Your task to perform on an android device: clear all cookies in the chrome app Image 0: 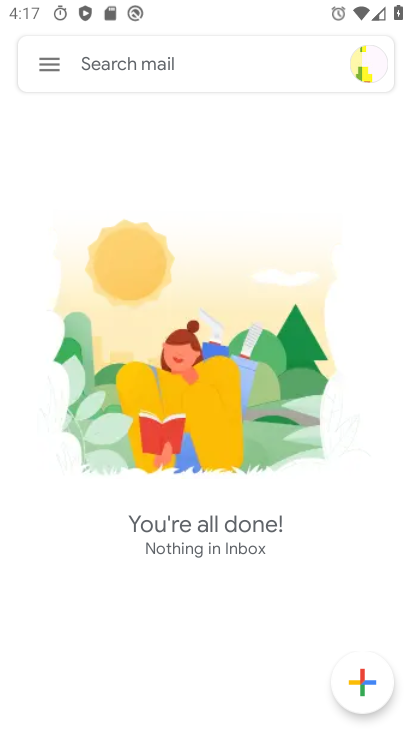
Step 0: click (44, 57)
Your task to perform on an android device: clear all cookies in the chrome app Image 1: 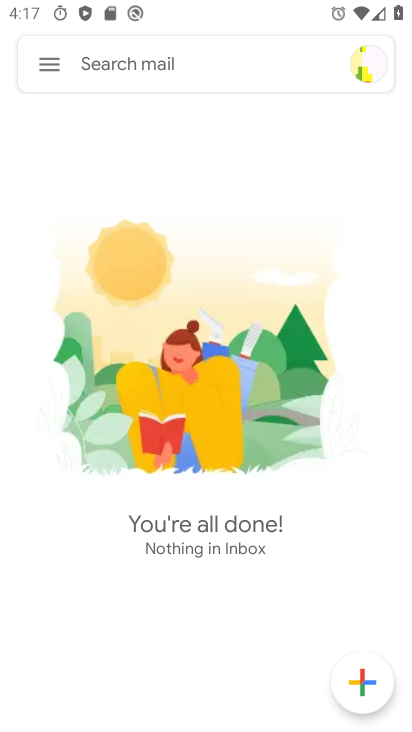
Step 1: click (44, 57)
Your task to perform on an android device: clear all cookies in the chrome app Image 2: 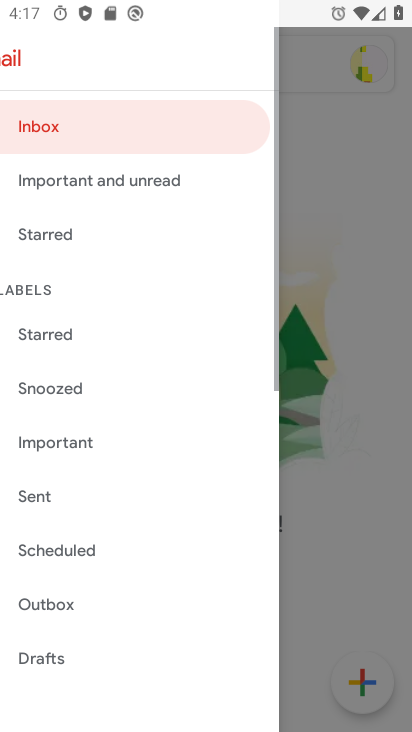
Step 2: click (44, 57)
Your task to perform on an android device: clear all cookies in the chrome app Image 3: 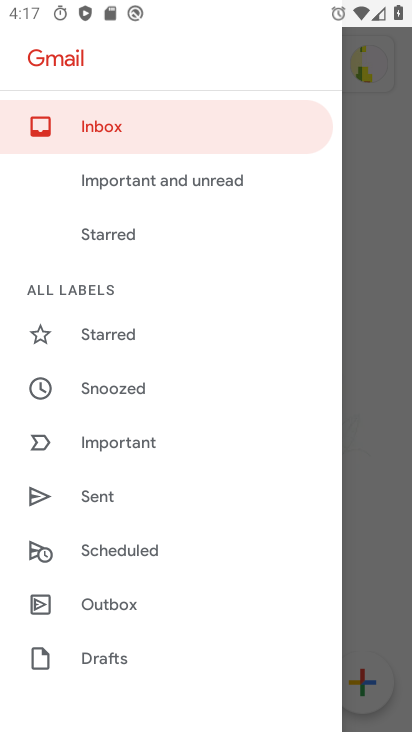
Step 3: click (364, 523)
Your task to perform on an android device: clear all cookies in the chrome app Image 4: 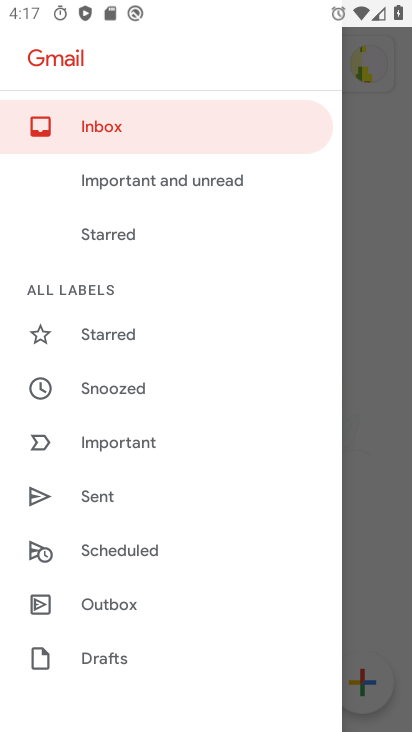
Step 4: click (362, 524)
Your task to perform on an android device: clear all cookies in the chrome app Image 5: 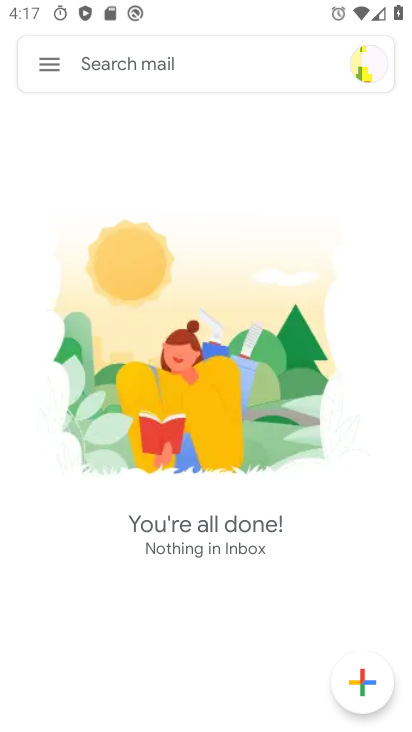
Step 5: click (361, 533)
Your task to perform on an android device: clear all cookies in the chrome app Image 6: 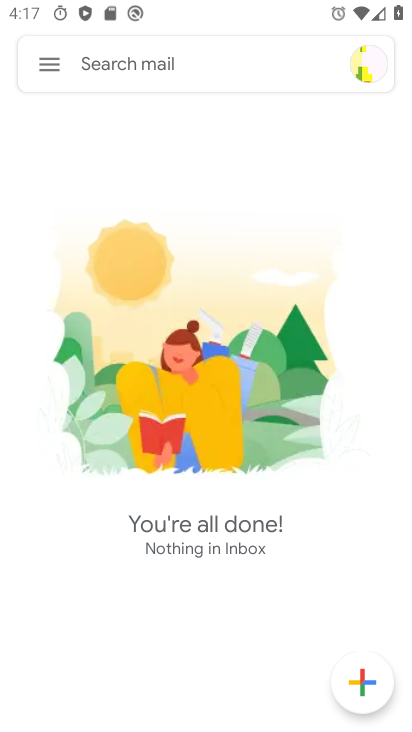
Step 6: click (44, 52)
Your task to perform on an android device: clear all cookies in the chrome app Image 7: 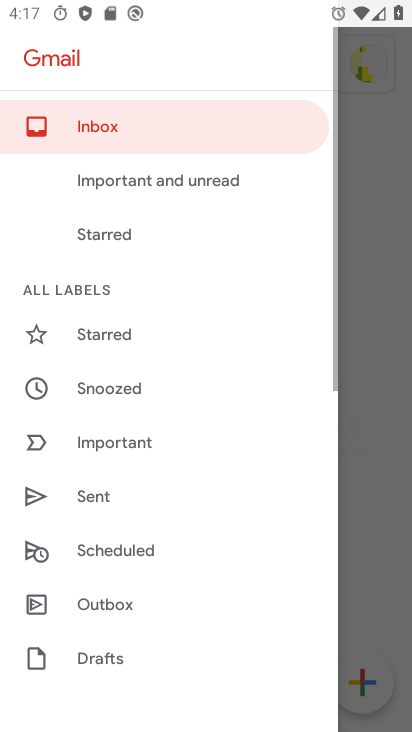
Step 7: click (43, 55)
Your task to perform on an android device: clear all cookies in the chrome app Image 8: 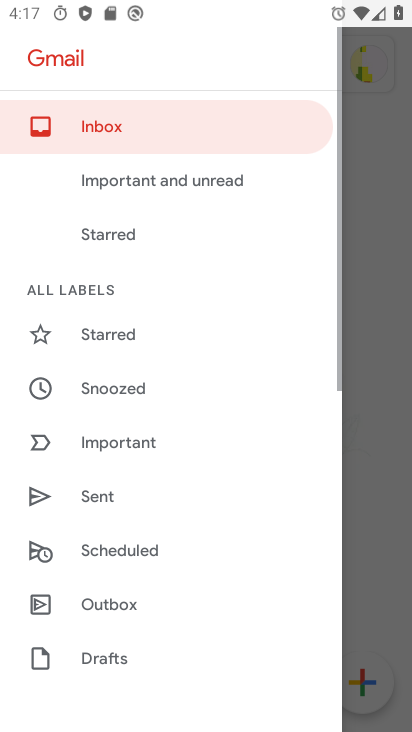
Step 8: drag from (105, 538) to (27, 72)
Your task to perform on an android device: clear all cookies in the chrome app Image 9: 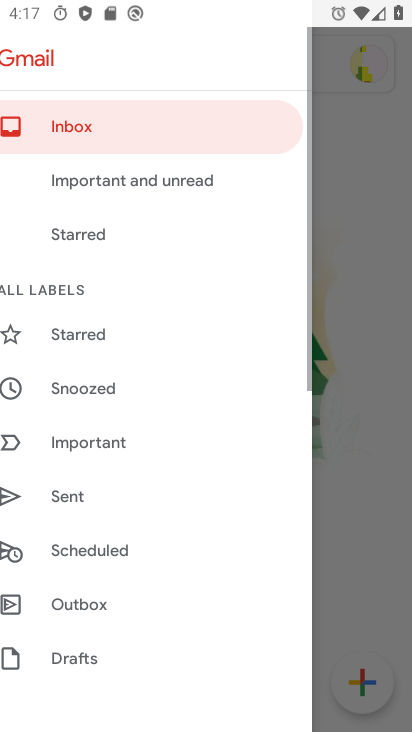
Step 9: drag from (134, 484) to (76, 229)
Your task to perform on an android device: clear all cookies in the chrome app Image 10: 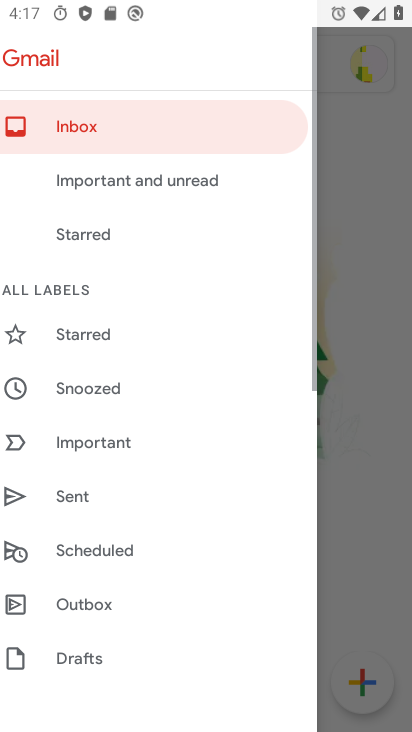
Step 10: drag from (126, 564) to (114, 148)
Your task to perform on an android device: clear all cookies in the chrome app Image 11: 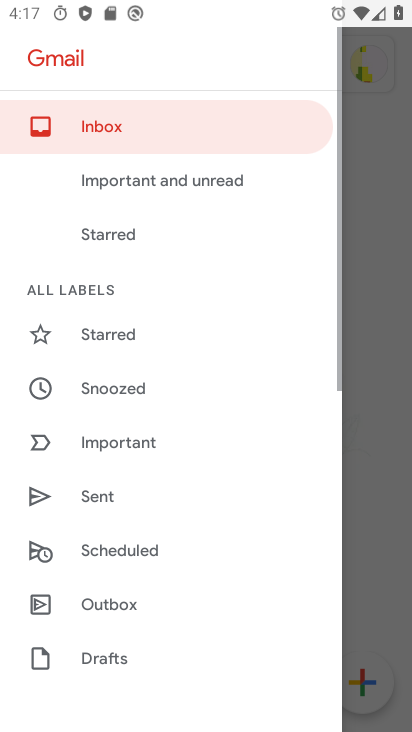
Step 11: drag from (118, 535) to (122, 14)
Your task to perform on an android device: clear all cookies in the chrome app Image 12: 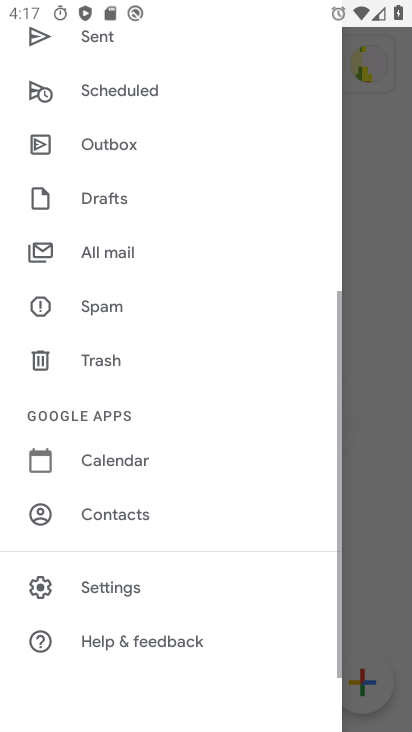
Step 12: drag from (104, 487) to (60, 85)
Your task to perform on an android device: clear all cookies in the chrome app Image 13: 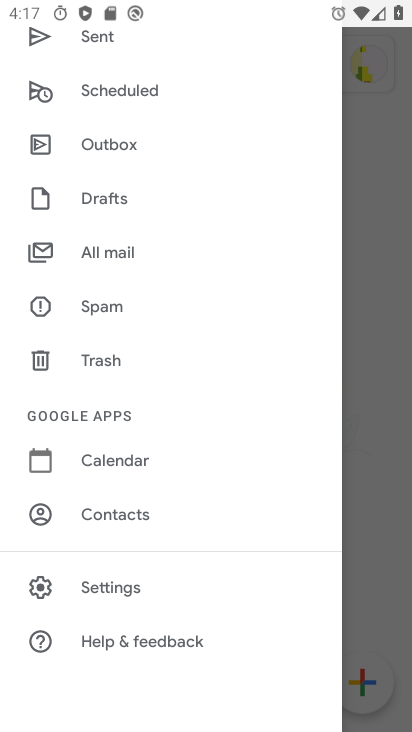
Step 13: click (97, 582)
Your task to perform on an android device: clear all cookies in the chrome app Image 14: 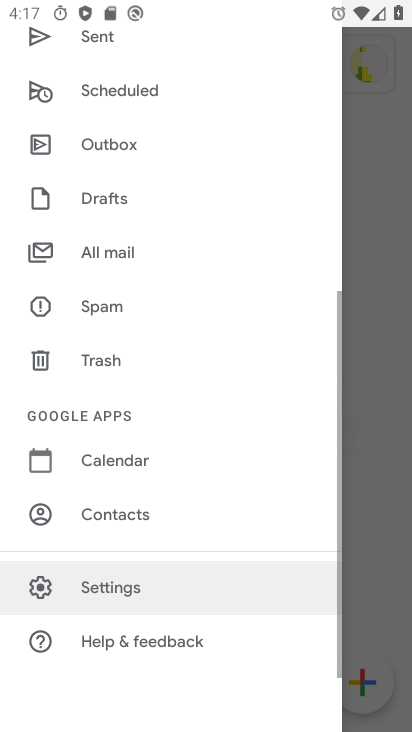
Step 14: click (97, 581)
Your task to perform on an android device: clear all cookies in the chrome app Image 15: 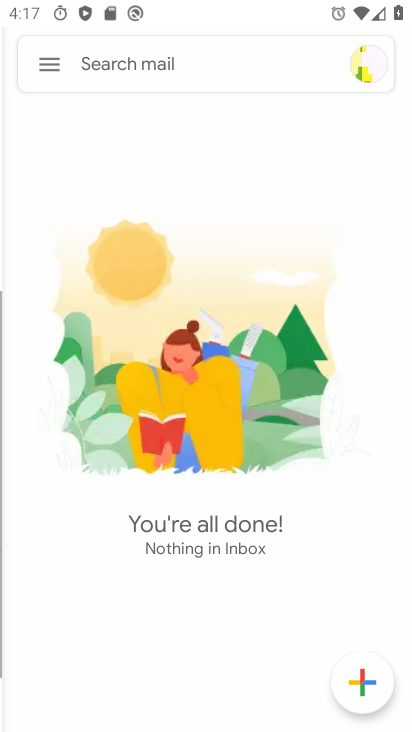
Step 15: click (97, 579)
Your task to perform on an android device: clear all cookies in the chrome app Image 16: 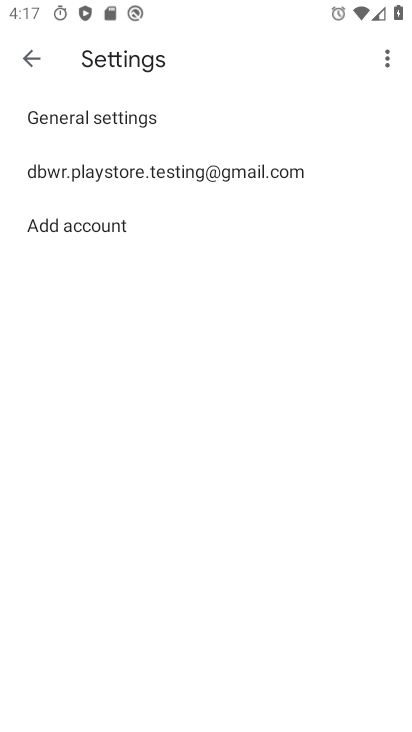
Step 16: click (152, 172)
Your task to perform on an android device: clear all cookies in the chrome app Image 17: 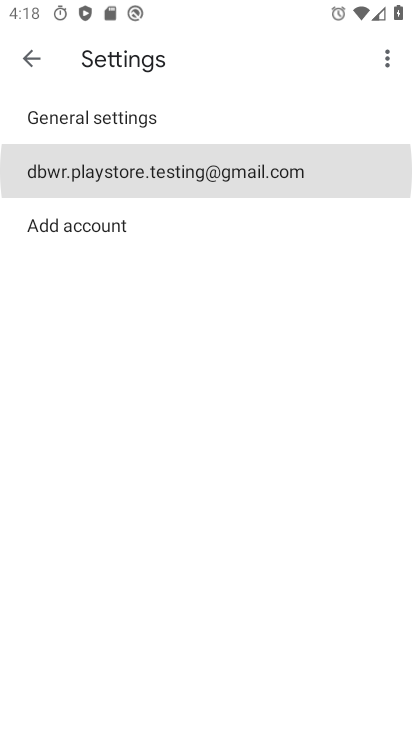
Step 17: click (151, 171)
Your task to perform on an android device: clear all cookies in the chrome app Image 18: 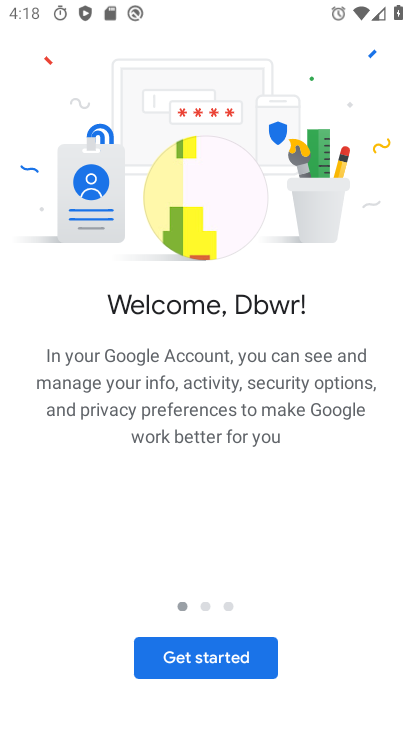
Step 18: click (206, 652)
Your task to perform on an android device: clear all cookies in the chrome app Image 19: 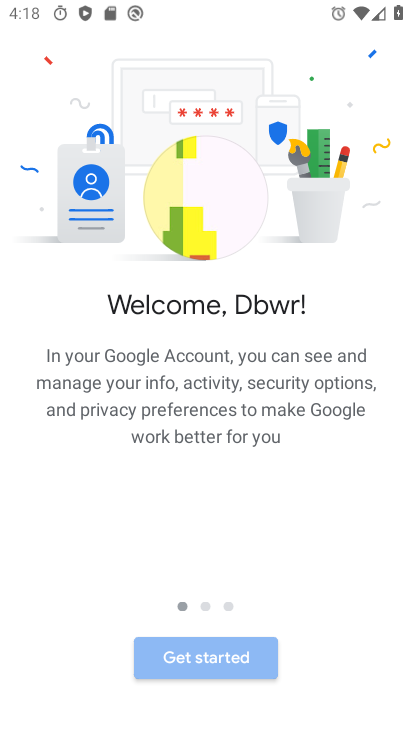
Step 19: click (206, 659)
Your task to perform on an android device: clear all cookies in the chrome app Image 20: 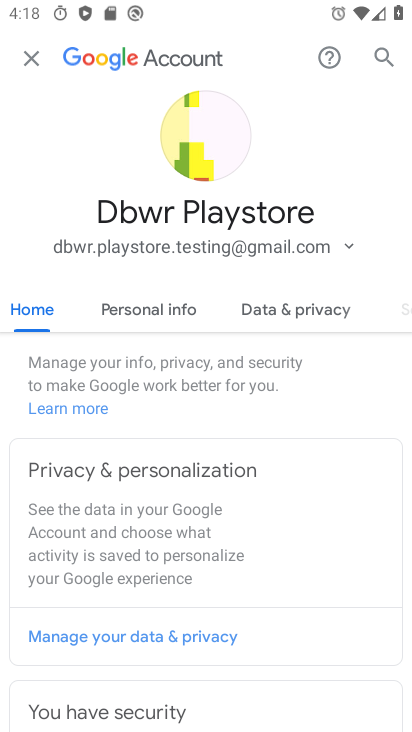
Step 20: click (213, 651)
Your task to perform on an android device: clear all cookies in the chrome app Image 21: 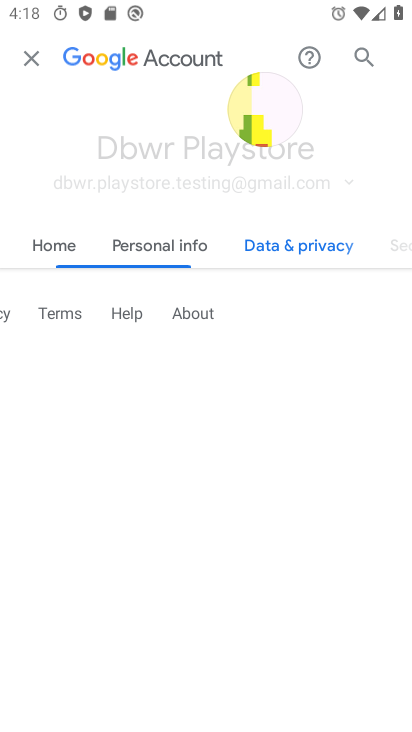
Step 21: click (220, 650)
Your task to perform on an android device: clear all cookies in the chrome app Image 22: 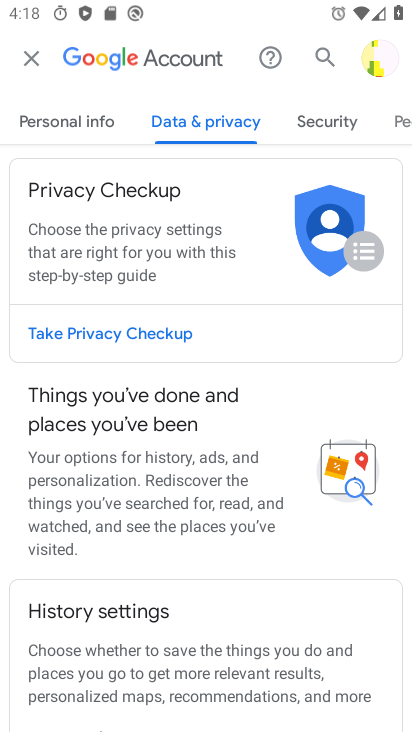
Step 22: click (30, 58)
Your task to perform on an android device: clear all cookies in the chrome app Image 23: 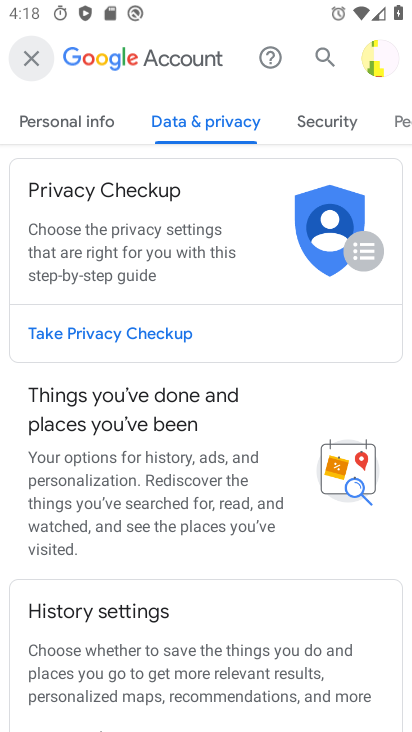
Step 23: click (30, 58)
Your task to perform on an android device: clear all cookies in the chrome app Image 24: 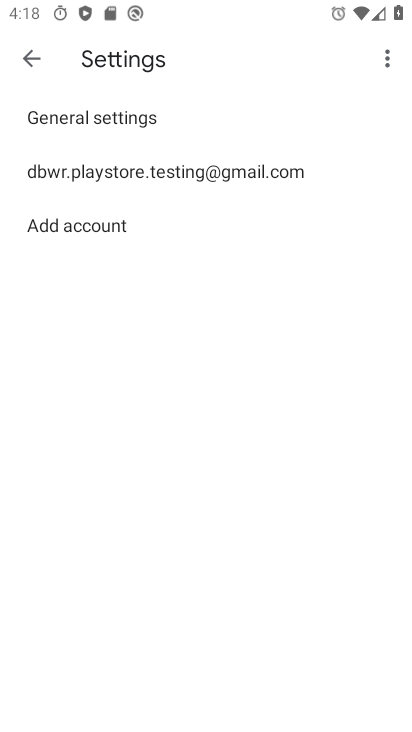
Step 24: click (156, 169)
Your task to perform on an android device: clear all cookies in the chrome app Image 25: 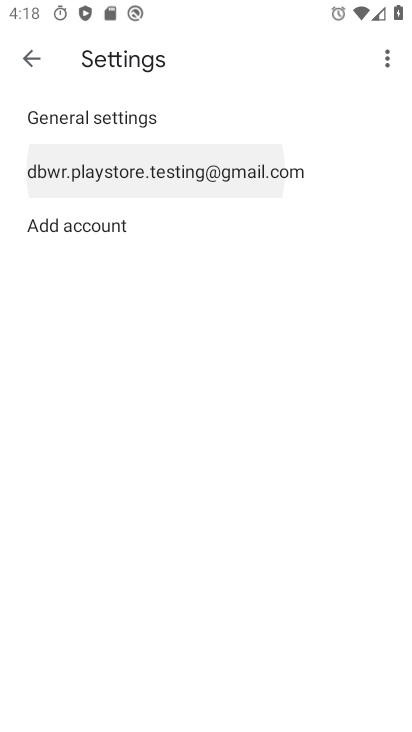
Step 25: click (156, 169)
Your task to perform on an android device: clear all cookies in the chrome app Image 26: 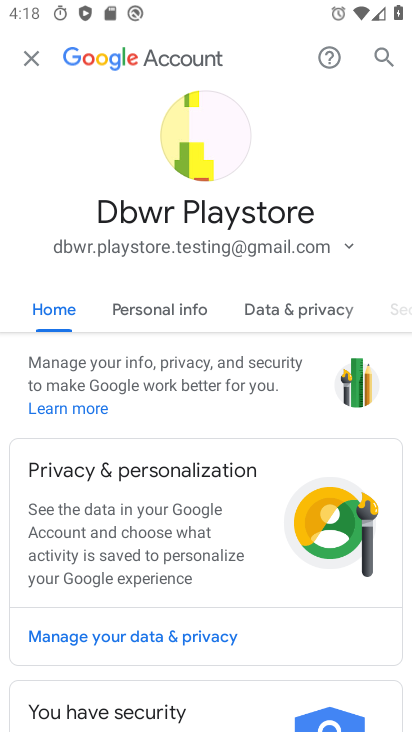
Step 26: click (30, 61)
Your task to perform on an android device: clear all cookies in the chrome app Image 27: 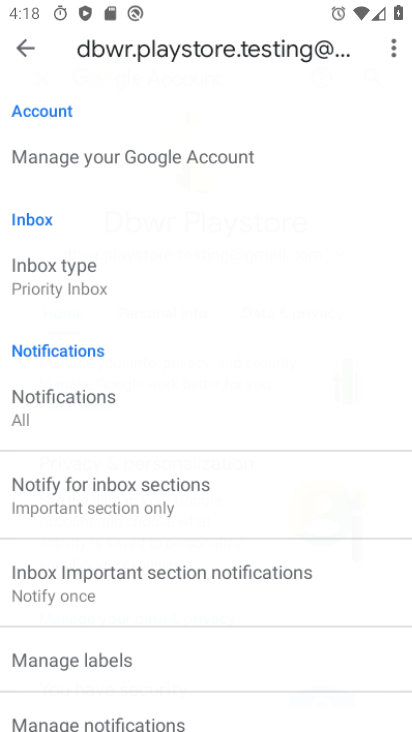
Step 27: click (30, 61)
Your task to perform on an android device: clear all cookies in the chrome app Image 28: 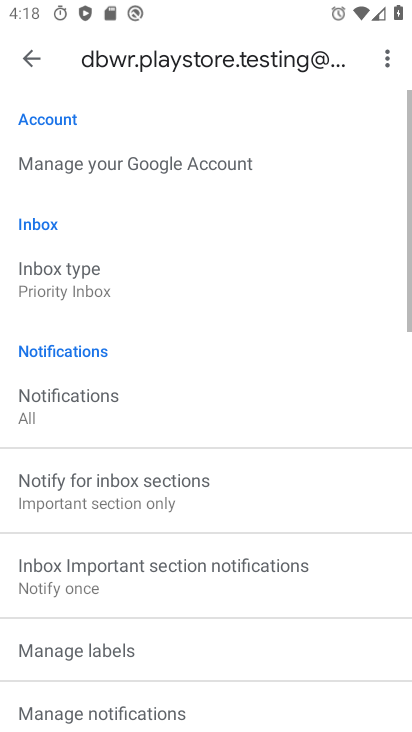
Step 28: click (30, 61)
Your task to perform on an android device: clear all cookies in the chrome app Image 29: 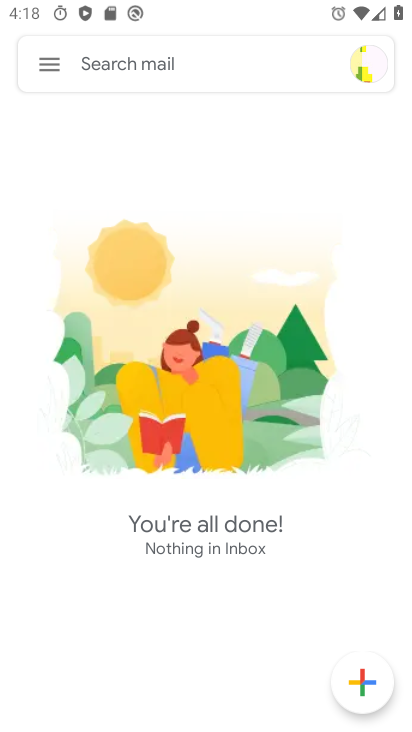
Step 29: click (28, 44)
Your task to perform on an android device: clear all cookies in the chrome app Image 30: 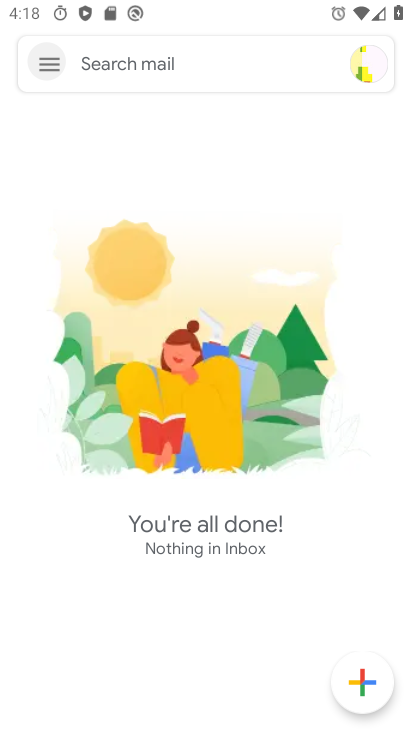
Step 30: click (25, 44)
Your task to perform on an android device: clear all cookies in the chrome app Image 31: 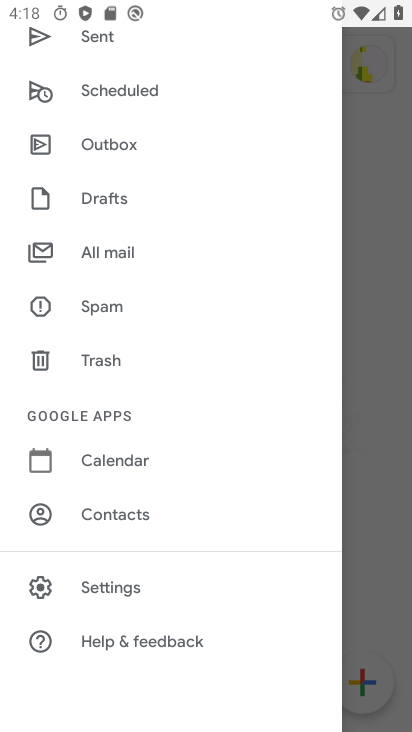
Step 31: press home button
Your task to perform on an android device: clear all cookies in the chrome app Image 32: 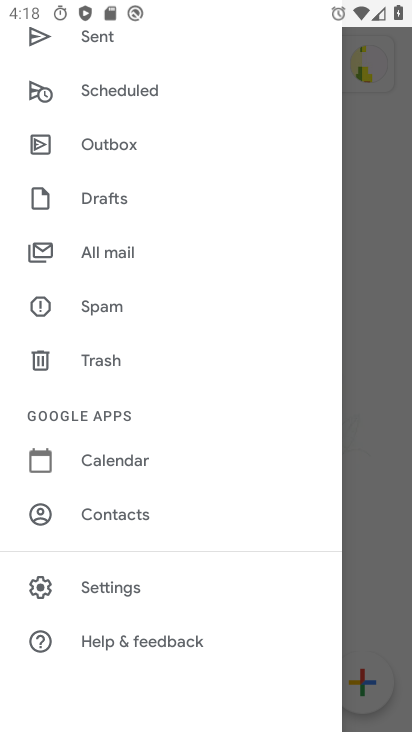
Step 32: press home button
Your task to perform on an android device: clear all cookies in the chrome app Image 33: 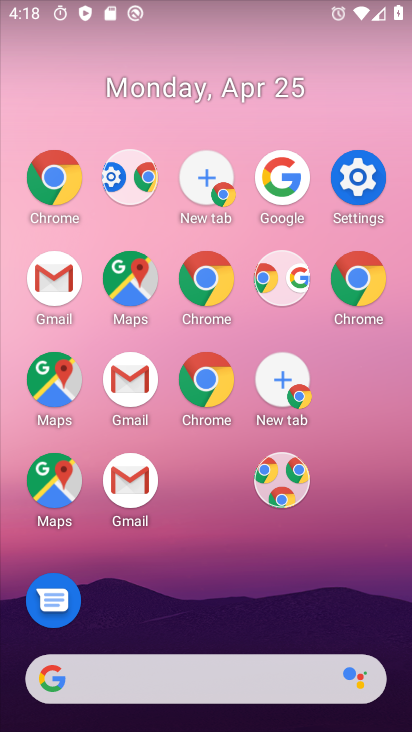
Step 33: drag from (287, 578) to (128, 5)
Your task to perform on an android device: clear all cookies in the chrome app Image 34: 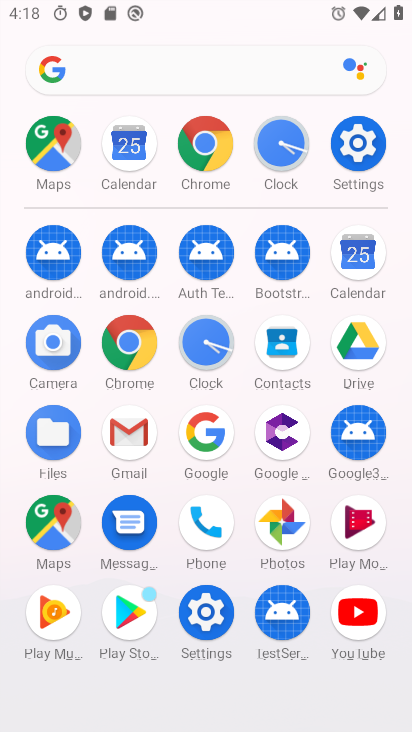
Step 34: click (186, 144)
Your task to perform on an android device: clear all cookies in the chrome app Image 35: 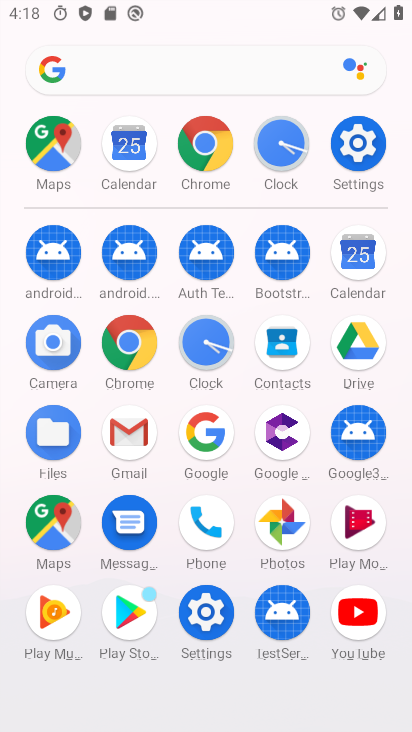
Step 35: click (186, 144)
Your task to perform on an android device: clear all cookies in the chrome app Image 36: 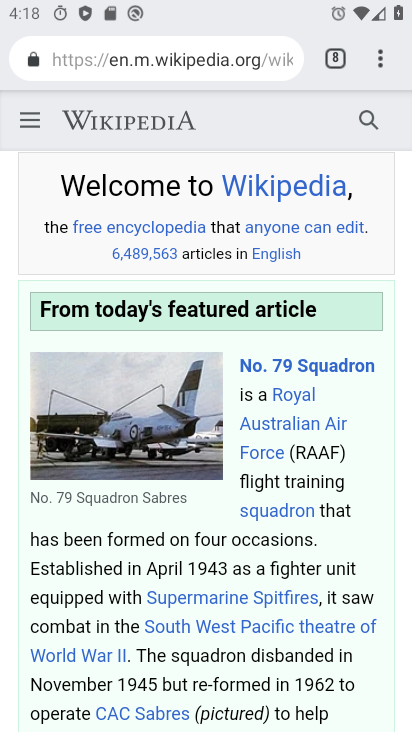
Step 36: drag from (378, 66) to (137, 474)
Your task to perform on an android device: clear all cookies in the chrome app Image 37: 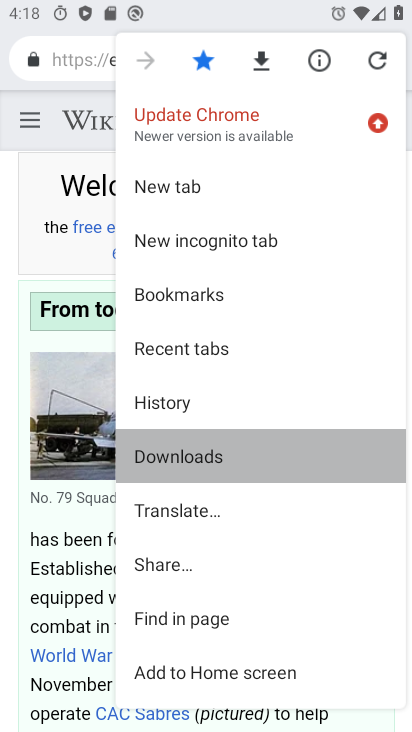
Step 37: drag from (137, 474) to (97, 144)
Your task to perform on an android device: clear all cookies in the chrome app Image 38: 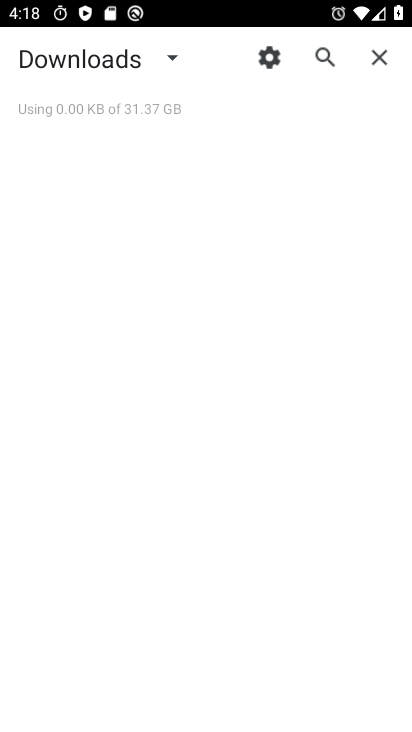
Step 38: click (375, 57)
Your task to perform on an android device: clear all cookies in the chrome app Image 39: 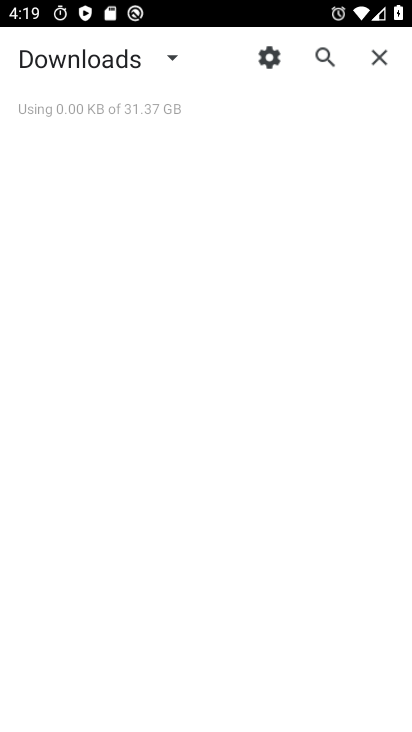
Step 39: click (372, 59)
Your task to perform on an android device: clear all cookies in the chrome app Image 40: 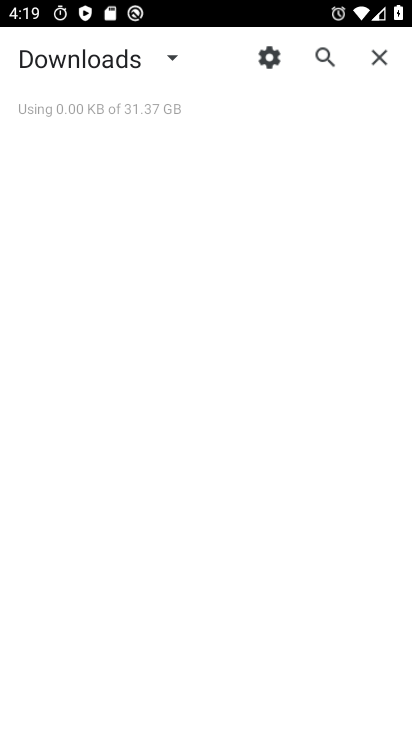
Step 40: click (372, 59)
Your task to perform on an android device: clear all cookies in the chrome app Image 41: 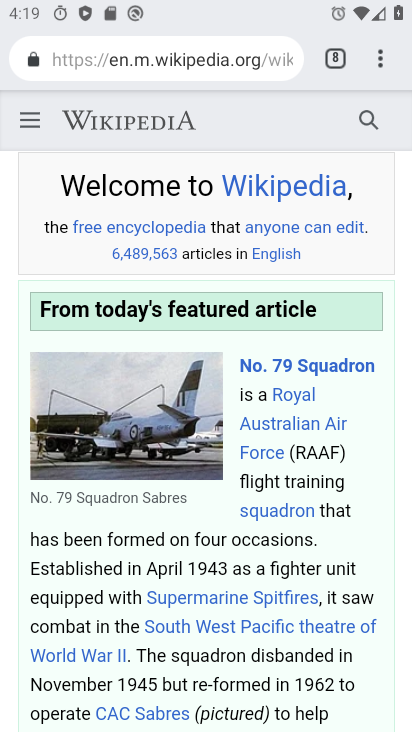
Step 41: drag from (377, 54) to (171, 631)
Your task to perform on an android device: clear all cookies in the chrome app Image 42: 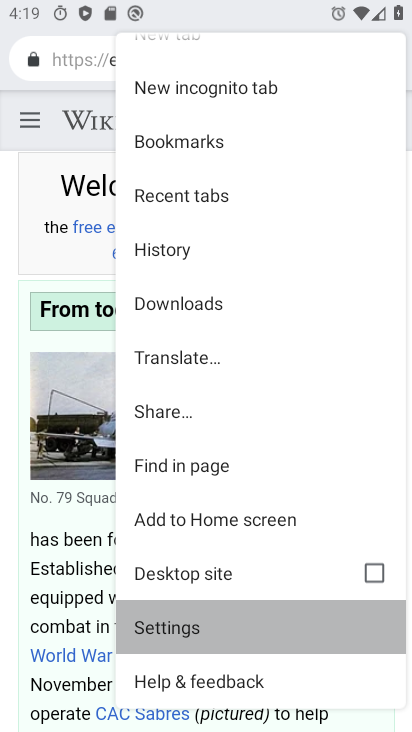
Step 42: click (172, 630)
Your task to perform on an android device: clear all cookies in the chrome app Image 43: 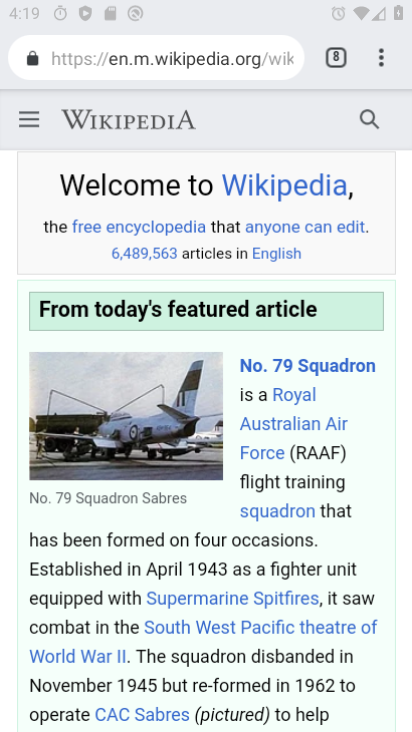
Step 43: click (176, 635)
Your task to perform on an android device: clear all cookies in the chrome app Image 44: 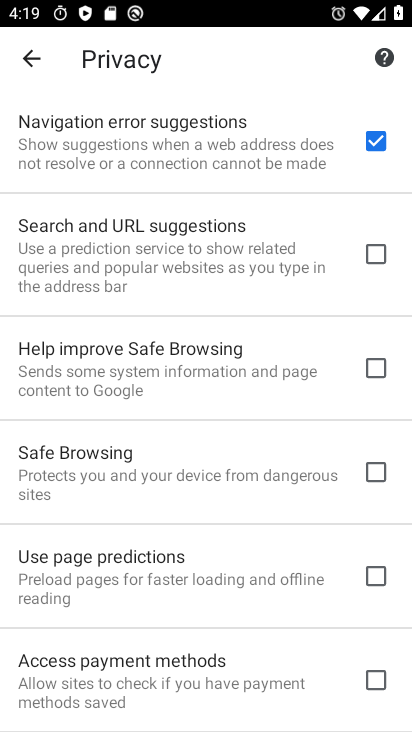
Step 44: drag from (171, 572) to (148, 152)
Your task to perform on an android device: clear all cookies in the chrome app Image 45: 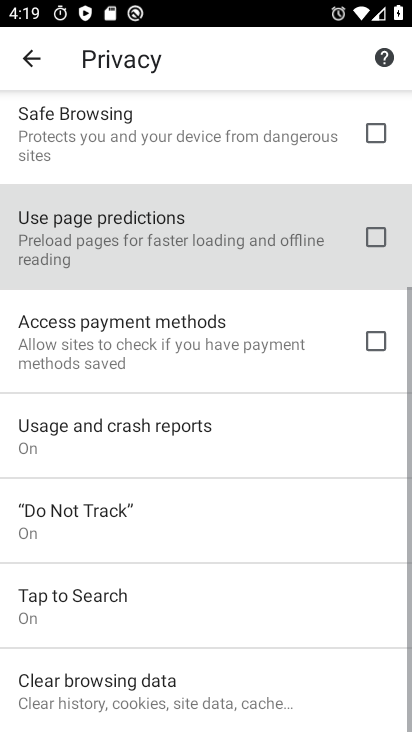
Step 45: drag from (172, 560) to (88, 215)
Your task to perform on an android device: clear all cookies in the chrome app Image 46: 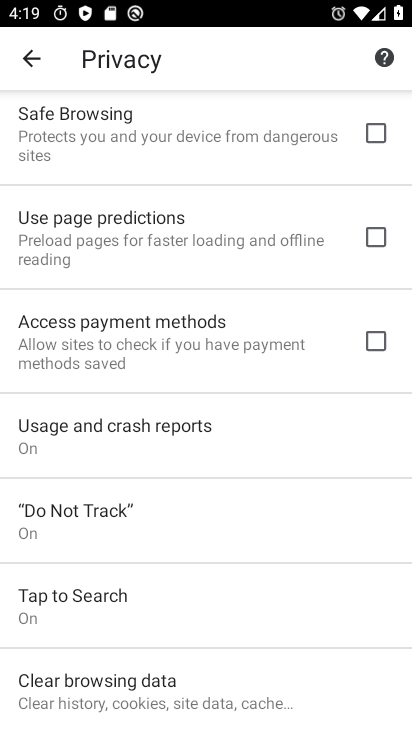
Step 46: click (30, 62)
Your task to perform on an android device: clear all cookies in the chrome app Image 47: 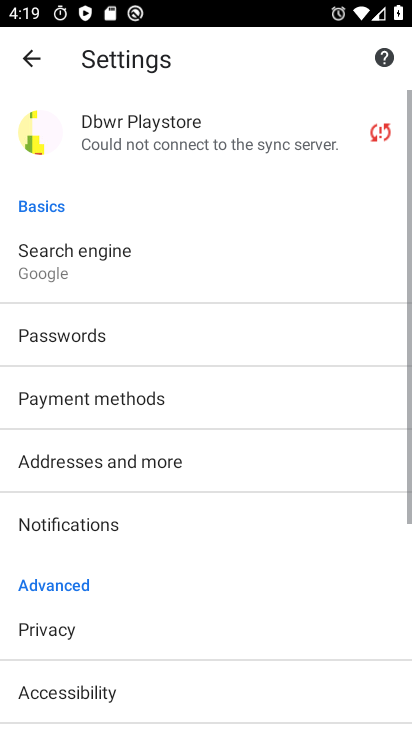
Step 47: drag from (176, 523) to (157, 216)
Your task to perform on an android device: clear all cookies in the chrome app Image 48: 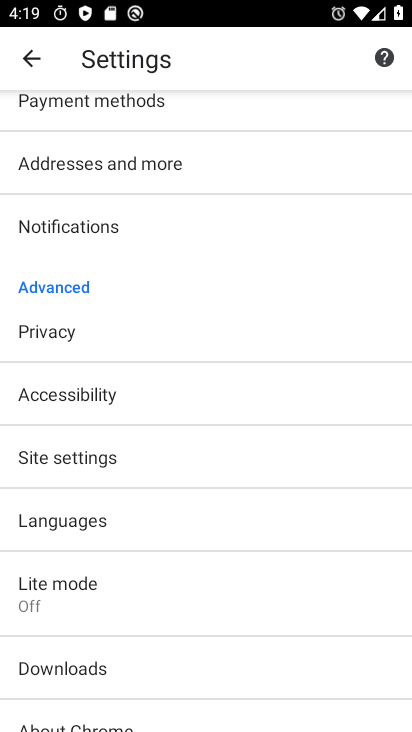
Step 48: drag from (135, 380) to (108, 132)
Your task to perform on an android device: clear all cookies in the chrome app Image 49: 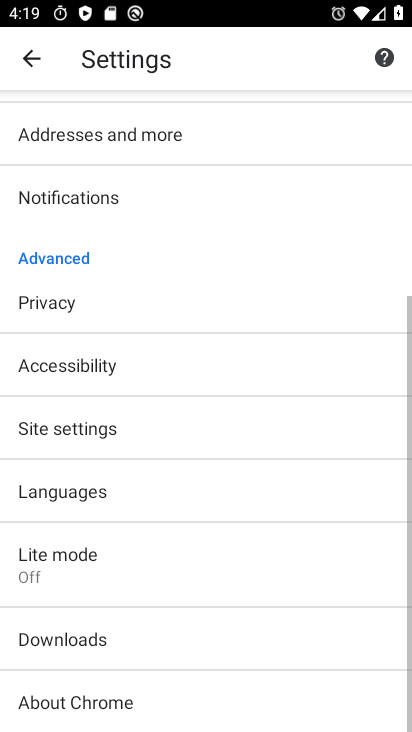
Step 49: click (61, 427)
Your task to perform on an android device: clear all cookies in the chrome app Image 50: 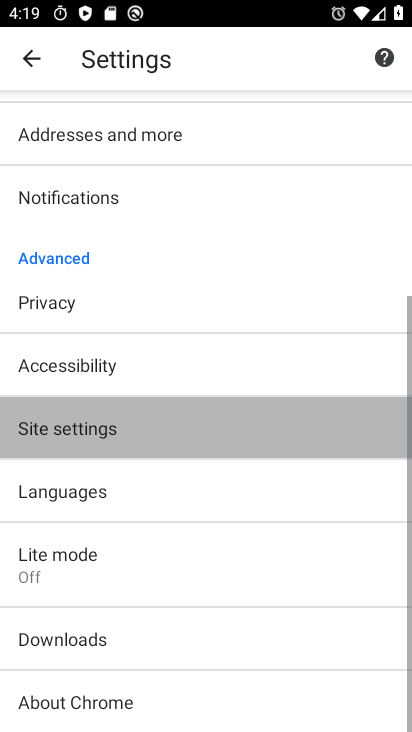
Step 50: click (61, 429)
Your task to perform on an android device: clear all cookies in the chrome app Image 51: 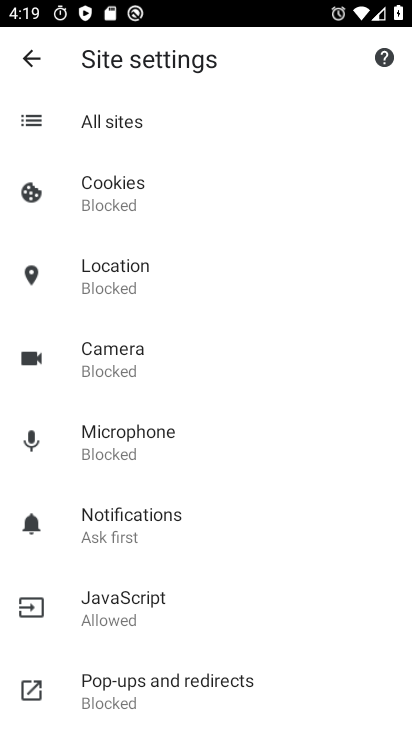
Step 51: drag from (149, 439) to (108, 5)
Your task to perform on an android device: clear all cookies in the chrome app Image 52: 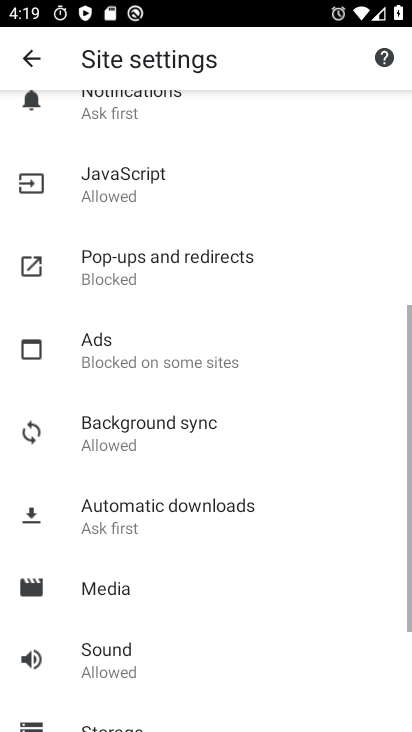
Step 52: drag from (133, 504) to (171, 4)
Your task to perform on an android device: clear all cookies in the chrome app Image 53: 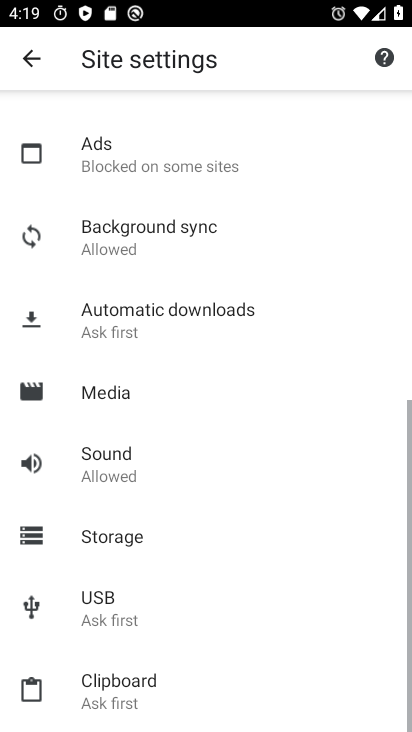
Step 53: drag from (131, 166) to (170, 672)
Your task to perform on an android device: clear all cookies in the chrome app Image 54: 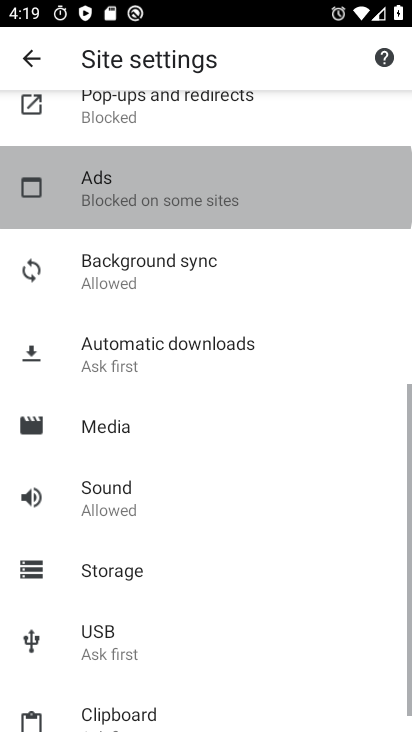
Step 54: drag from (148, 457) to (84, 619)
Your task to perform on an android device: clear all cookies in the chrome app Image 55: 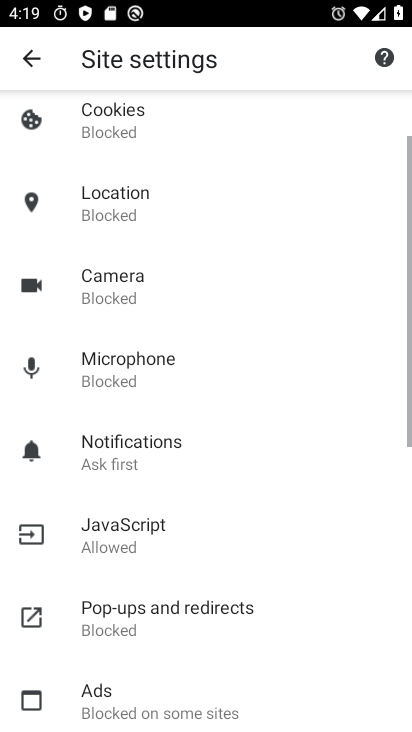
Step 55: click (157, 386)
Your task to perform on an android device: clear all cookies in the chrome app Image 56: 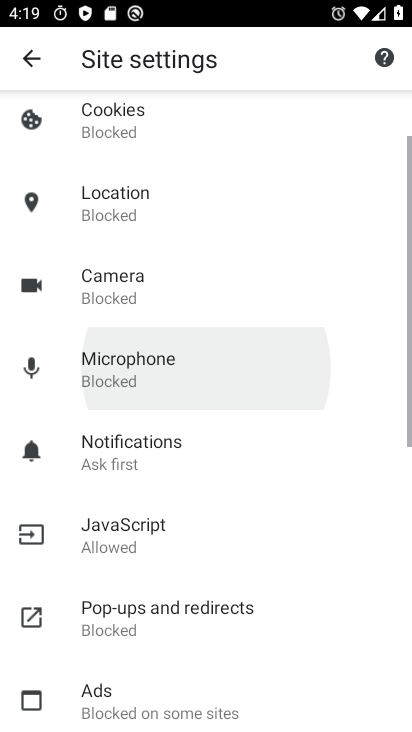
Step 56: drag from (120, 460) to (119, 422)
Your task to perform on an android device: clear all cookies in the chrome app Image 57: 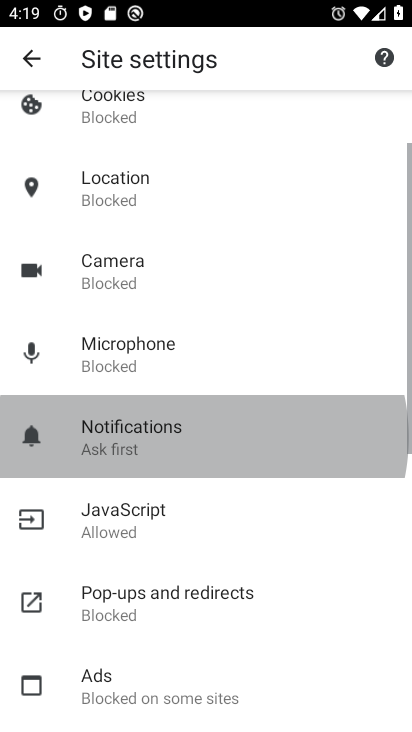
Step 57: drag from (71, 380) to (89, 615)
Your task to perform on an android device: clear all cookies in the chrome app Image 58: 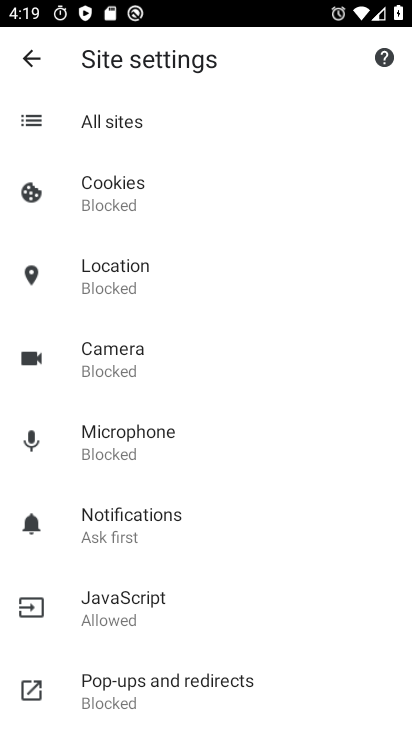
Step 58: click (101, 194)
Your task to perform on an android device: clear all cookies in the chrome app Image 59: 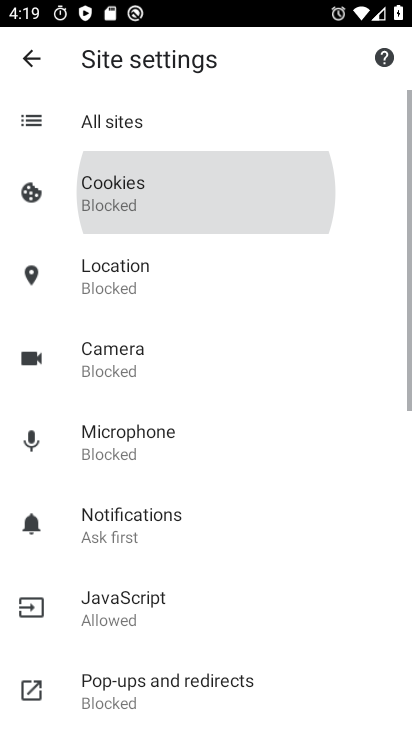
Step 59: click (101, 194)
Your task to perform on an android device: clear all cookies in the chrome app Image 60: 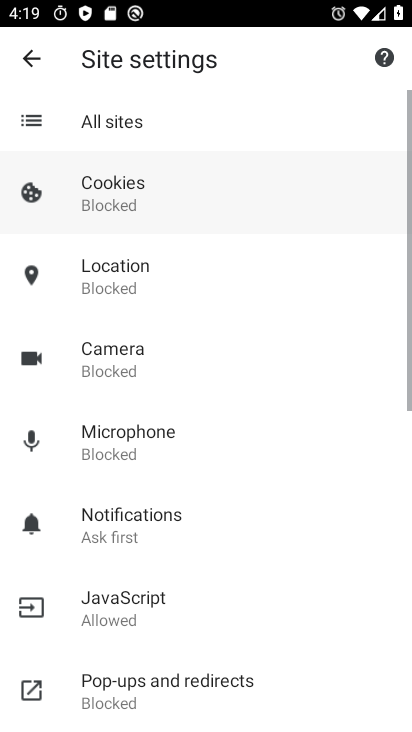
Step 60: click (101, 194)
Your task to perform on an android device: clear all cookies in the chrome app Image 61: 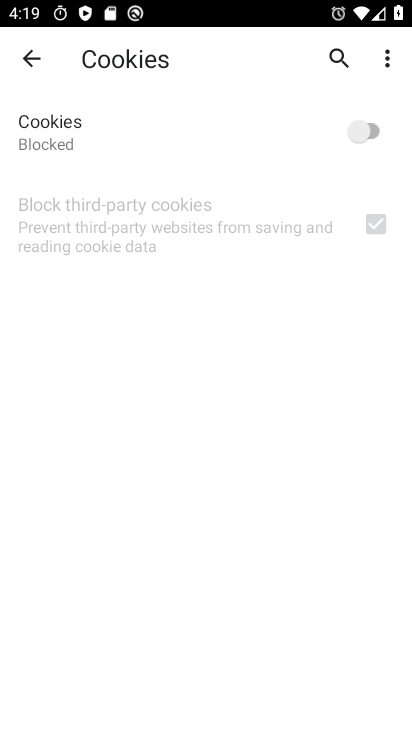
Step 61: click (363, 130)
Your task to perform on an android device: clear all cookies in the chrome app Image 62: 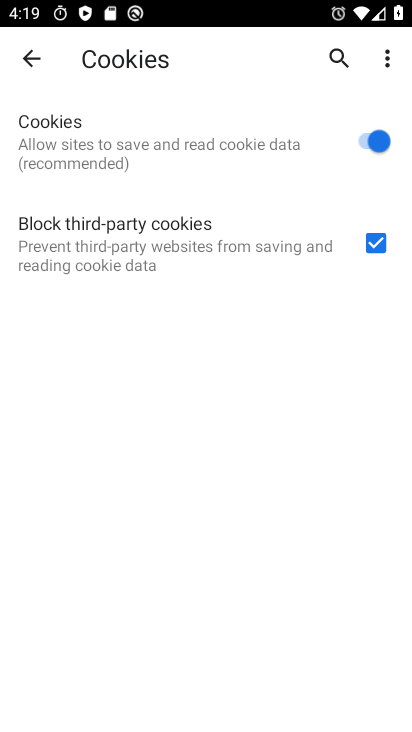
Step 62: task complete